Your task to perform on an android device: delete a single message in the gmail app Image 0: 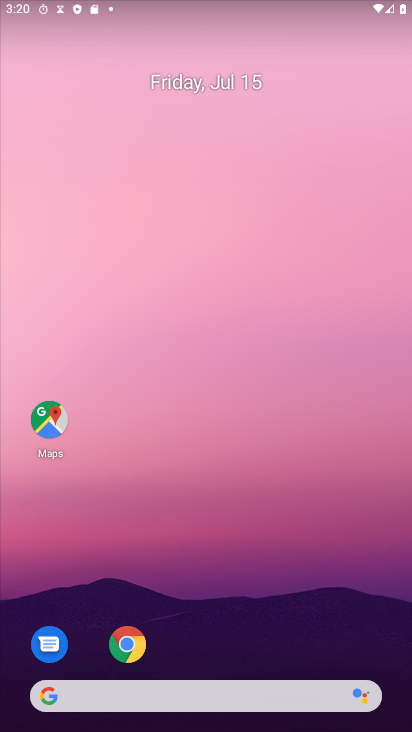
Step 0: drag from (293, 659) to (292, 12)
Your task to perform on an android device: delete a single message in the gmail app Image 1: 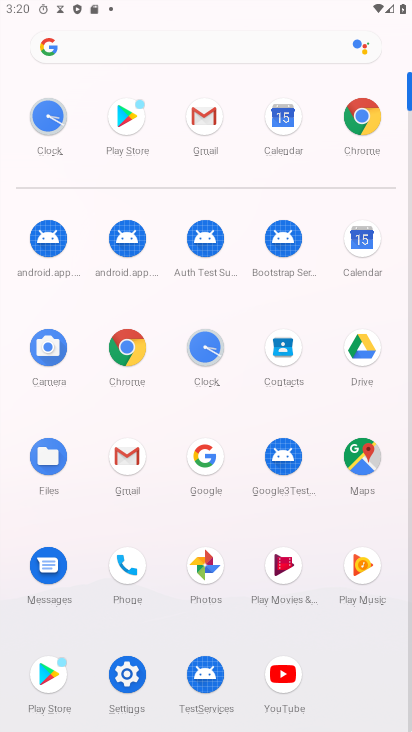
Step 1: click (123, 449)
Your task to perform on an android device: delete a single message in the gmail app Image 2: 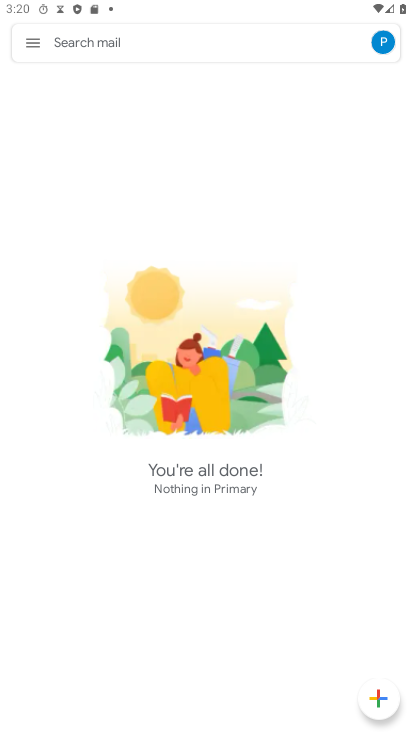
Step 2: click (36, 38)
Your task to perform on an android device: delete a single message in the gmail app Image 3: 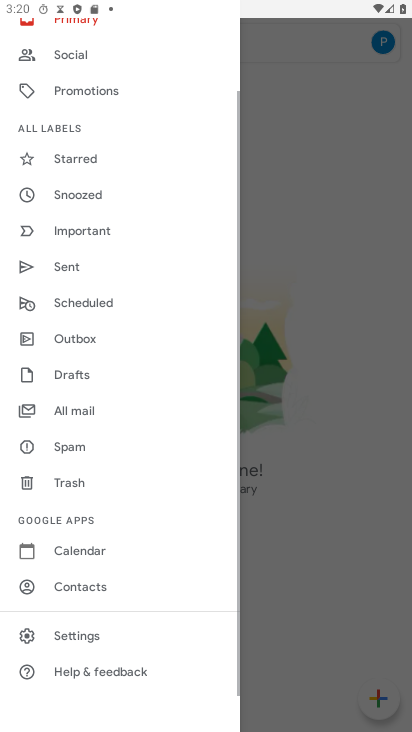
Step 3: drag from (89, 185) to (84, 633)
Your task to perform on an android device: delete a single message in the gmail app Image 4: 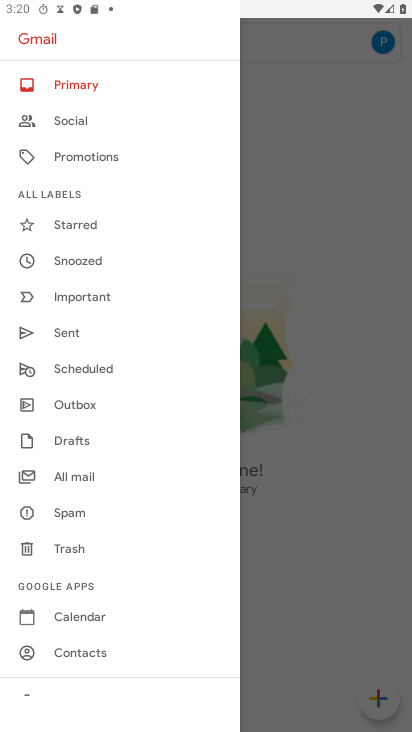
Step 4: click (322, 456)
Your task to perform on an android device: delete a single message in the gmail app Image 5: 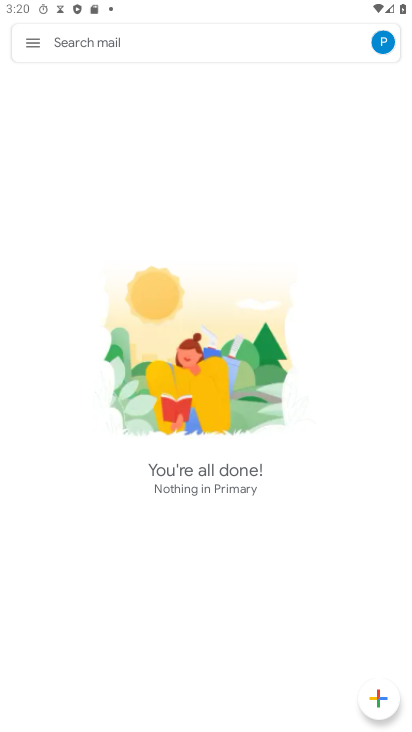
Step 5: task complete